Your task to perform on an android device: Open CNN.com Image 0: 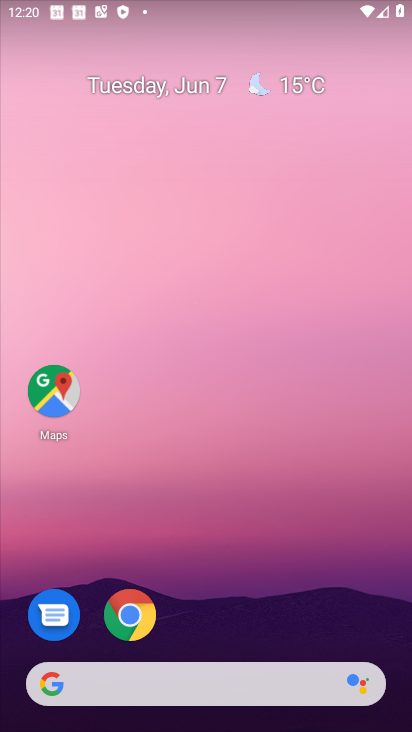
Step 0: click (123, 619)
Your task to perform on an android device: Open CNN.com Image 1: 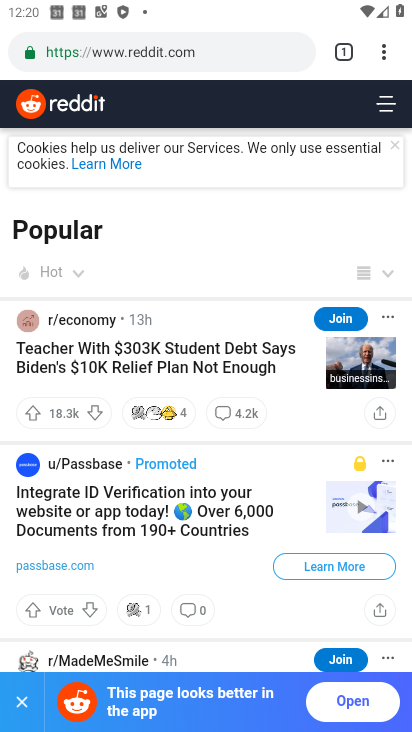
Step 1: click (180, 0)
Your task to perform on an android device: Open CNN.com Image 2: 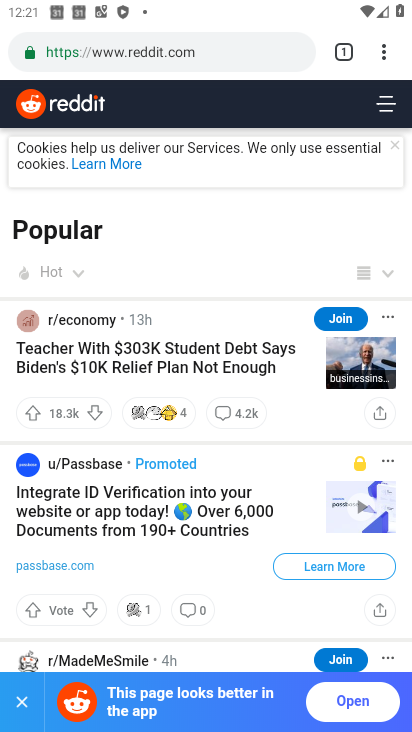
Step 2: click (129, 55)
Your task to perform on an android device: Open CNN.com Image 3: 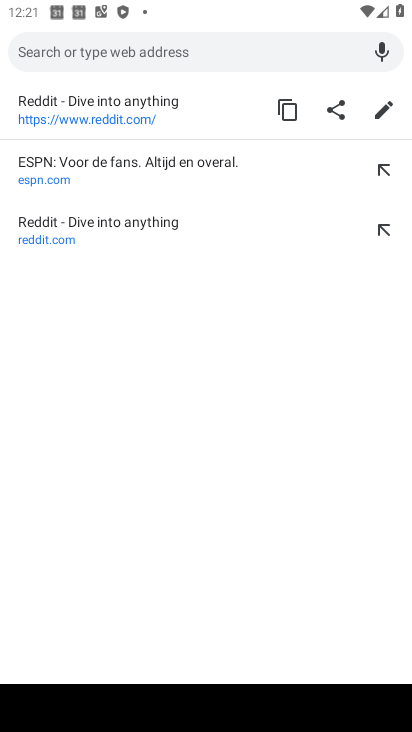
Step 3: type "www.cnn.com"
Your task to perform on an android device: Open CNN.com Image 4: 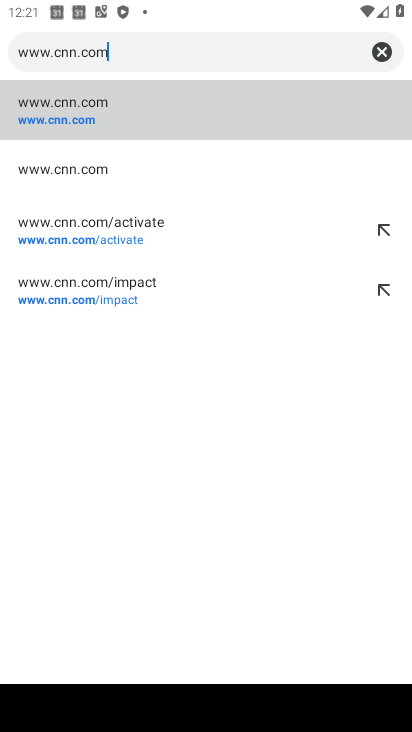
Step 4: click (67, 117)
Your task to perform on an android device: Open CNN.com Image 5: 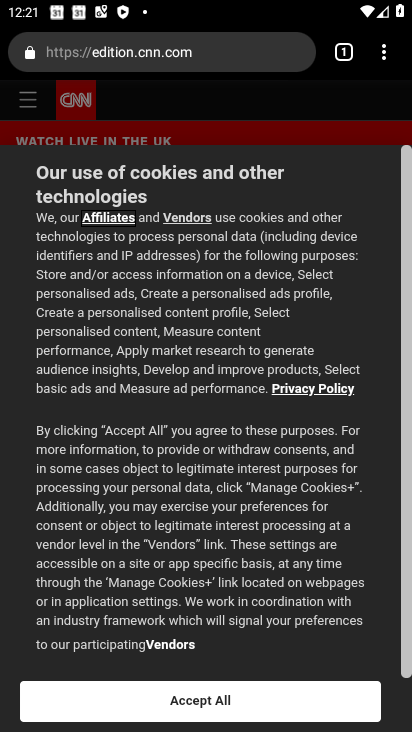
Step 5: task complete